Your task to perform on an android device: turn on sleep mode Image 0: 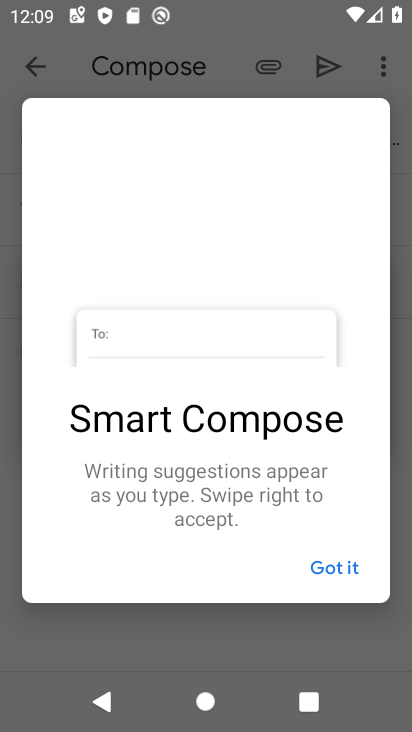
Step 0: press home button
Your task to perform on an android device: turn on sleep mode Image 1: 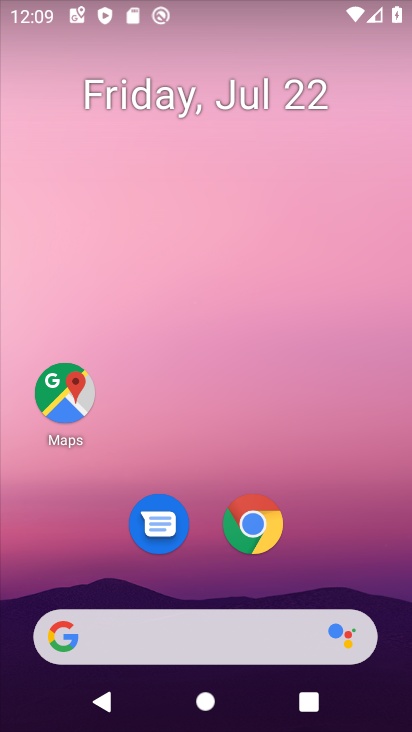
Step 1: drag from (296, 456) to (320, 212)
Your task to perform on an android device: turn on sleep mode Image 2: 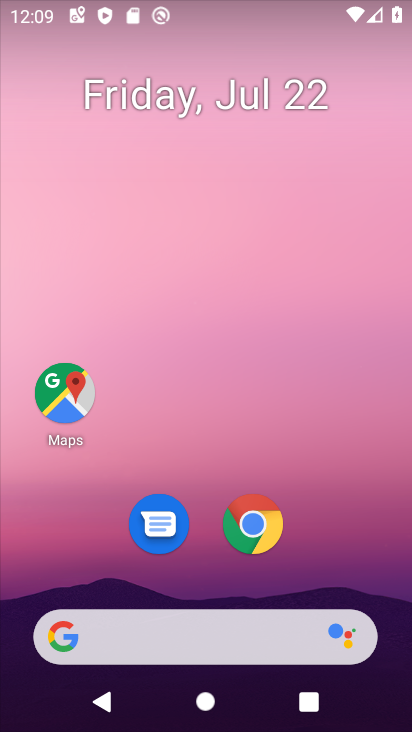
Step 2: drag from (325, 544) to (356, 72)
Your task to perform on an android device: turn on sleep mode Image 3: 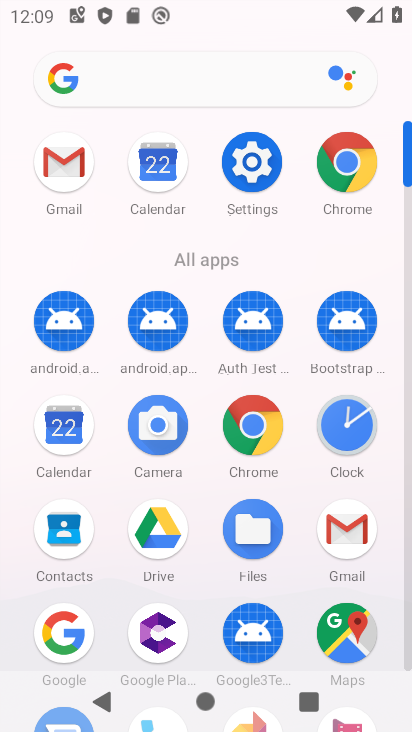
Step 3: click (254, 161)
Your task to perform on an android device: turn on sleep mode Image 4: 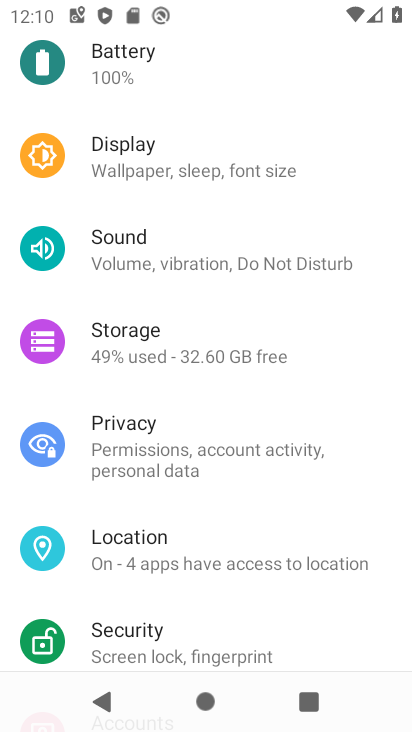
Step 4: click (211, 168)
Your task to perform on an android device: turn on sleep mode Image 5: 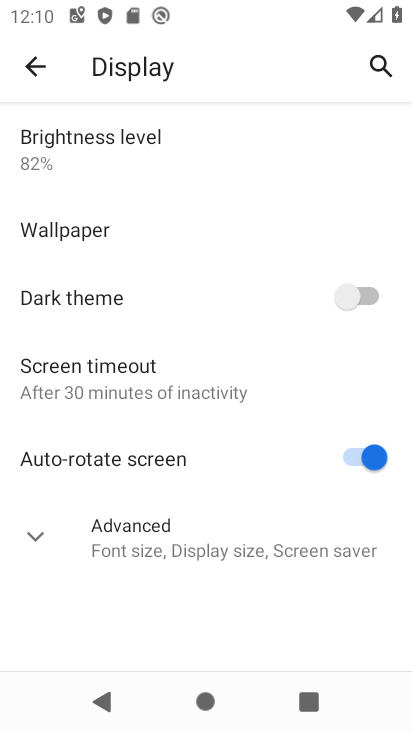
Step 5: click (38, 535)
Your task to perform on an android device: turn on sleep mode Image 6: 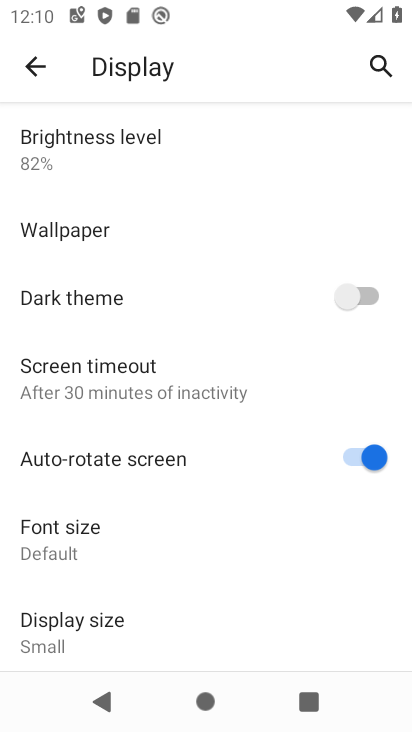
Step 6: task complete